Your task to perform on an android device: Open location settings Image 0: 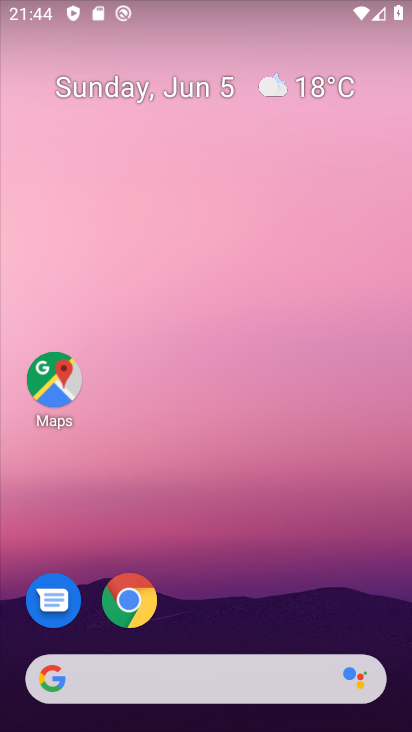
Step 0: drag from (306, 504) to (272, 105)
Your task to perform on an android device: Open location settings Image 1: 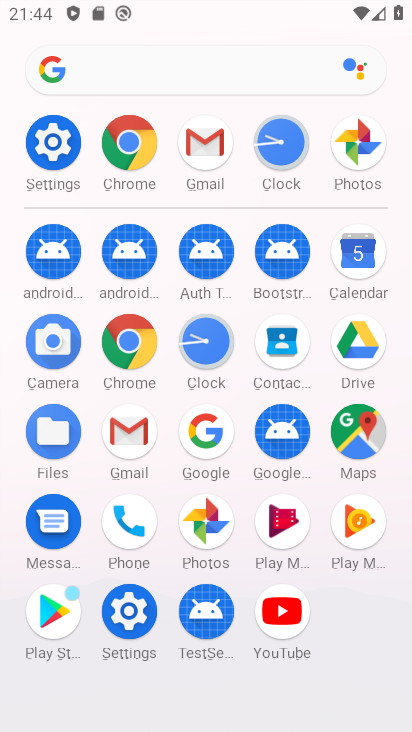
Step 1: click (69, 132)
Your task to perform on an android device: Open location settings Image 2: 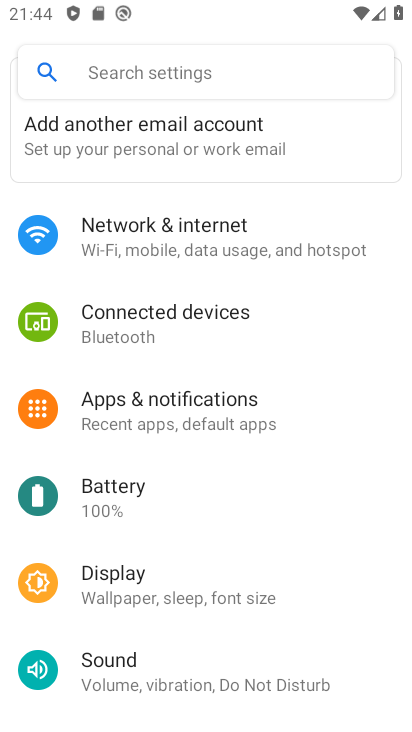
Step 2: drag from (221, 634) to (242, 203)
Your task to perform on an android device: Open location settings Image 3: 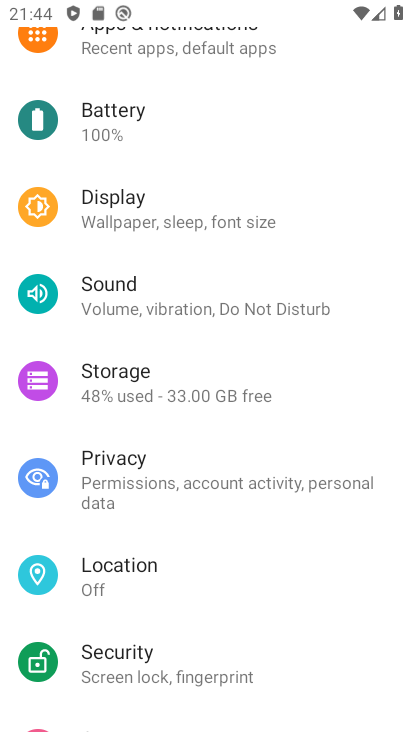
Step 3: click (242, 202)
Your task to perform on an android device: Open location settings Image 4: 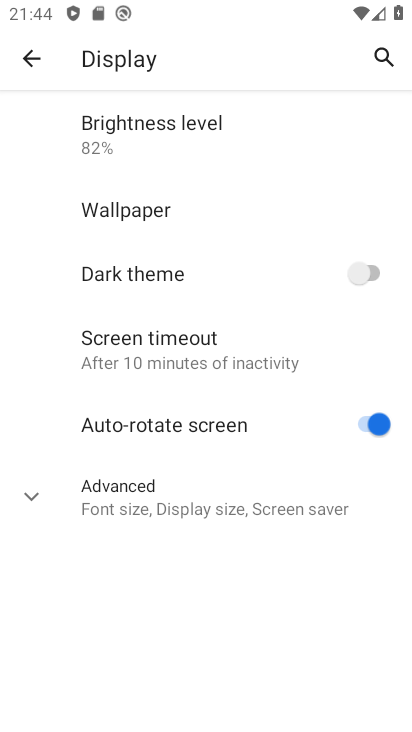
Step 4: click (41, 61)
Your task to perform on an android device: Open location settings Image 5: 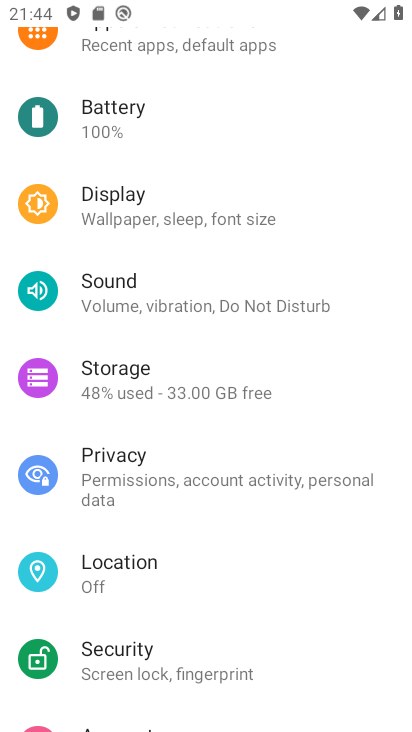
Step 5: click (120, 573)
Your task to perform on an android device: Open location settings Image 6: 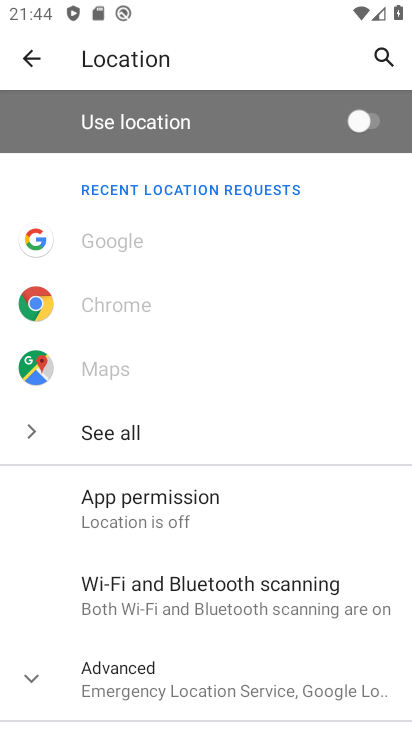
Step 6: task complete